Your task to perform on an android device: Open Reddit.com Image 0: 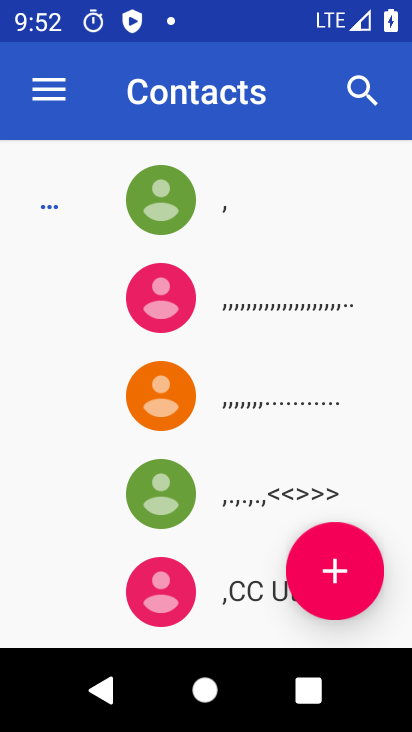
Step 0: press home button
Your task to perform on an android device: Open Reddit.com Image 1: 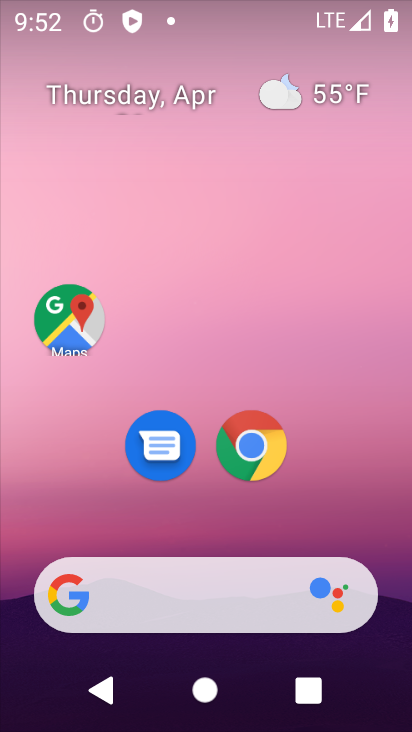
Step 1: click (256, 454)
Your task to perform on an android device: Open Reddit.com Image 2: 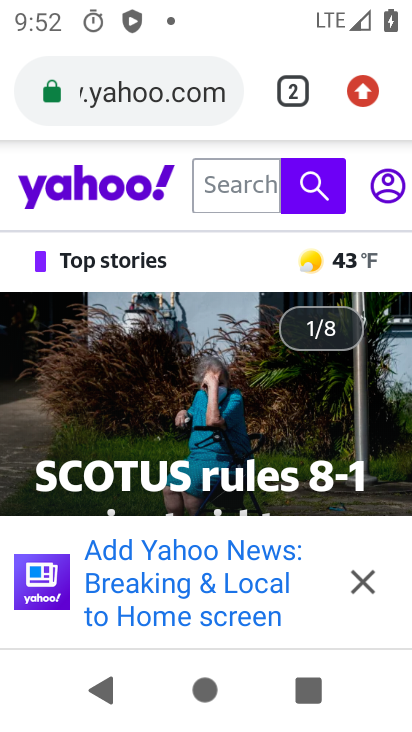
Step 2: click (134, 106)
Your task to perform on an android device: Open Reddit.com Image 3: 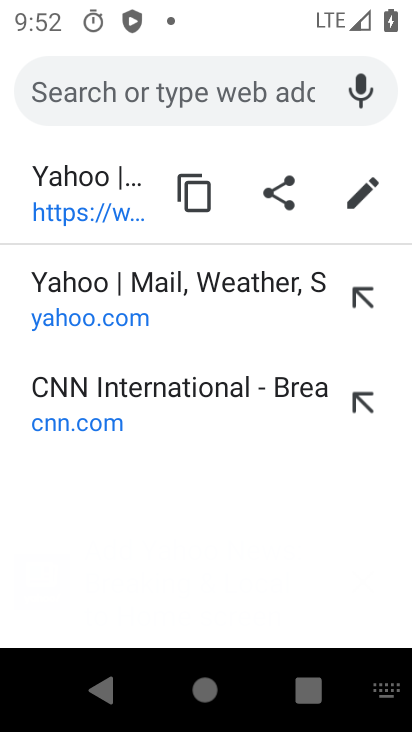
Step 3: type "reddit.com"
Your task to perform on an android device: Open Reddit.com Image 4: 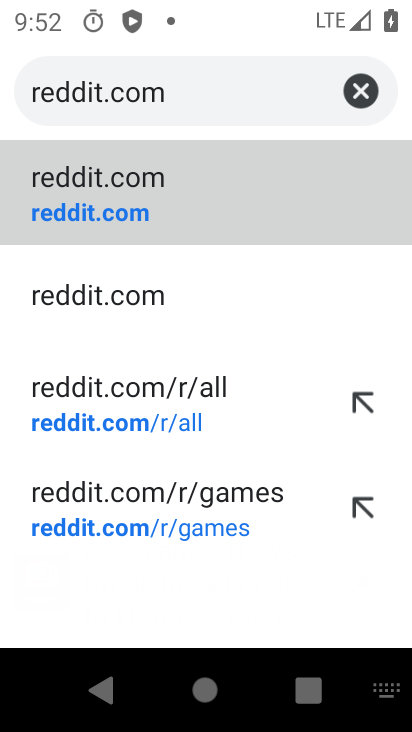
Step 4: click (109, 185)
Your task to perform on an android device: Open Reddit.com Image 5: 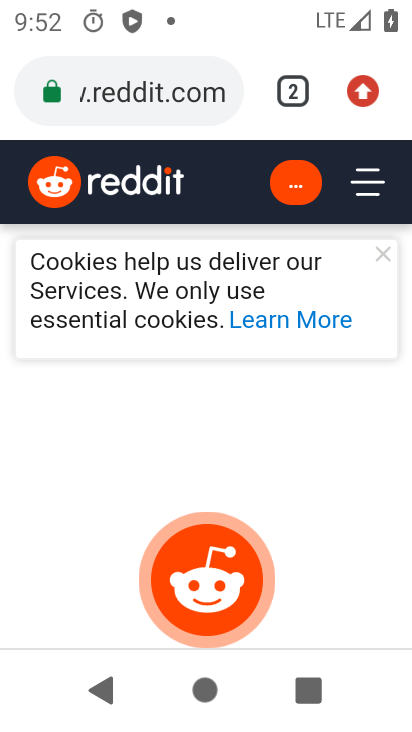
Step 5: task complete